Your task to perform on an android device: delete location history Image 0: 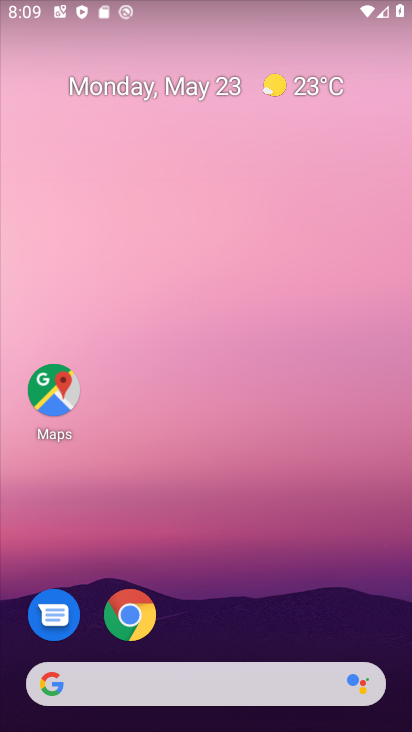
Step 0: click (54, 389)
Your task to perform on an android device: delete location history Image 1: 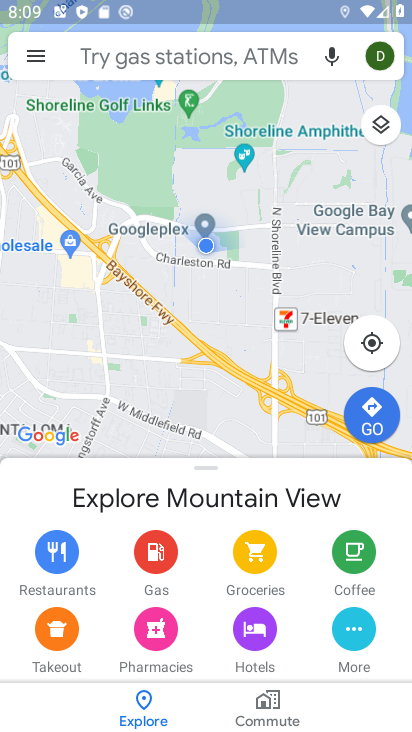
Step 1: click (39, 58)
Your task to perform on an android device: delete location history Image 2: 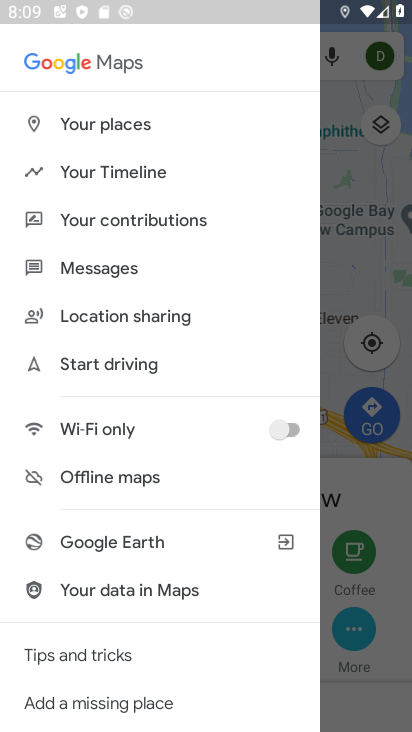
Step 2: drag from (100, 631) to (112, 507)
Your task to perform on an android device: delete location history Image 3: 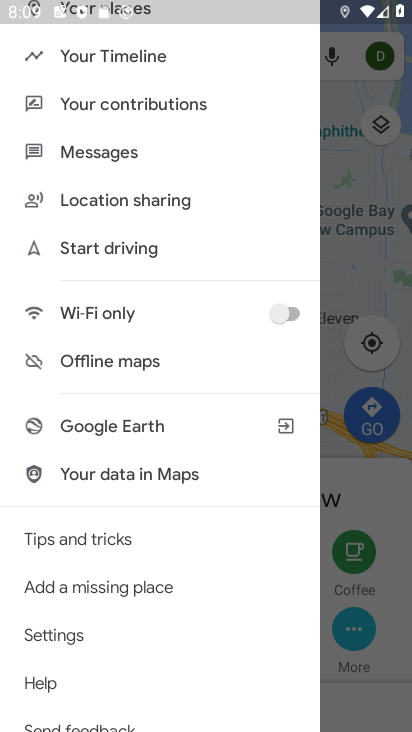
Step 3: click (66, 637)
Your task to perform on an android device: delete location history Image 4: 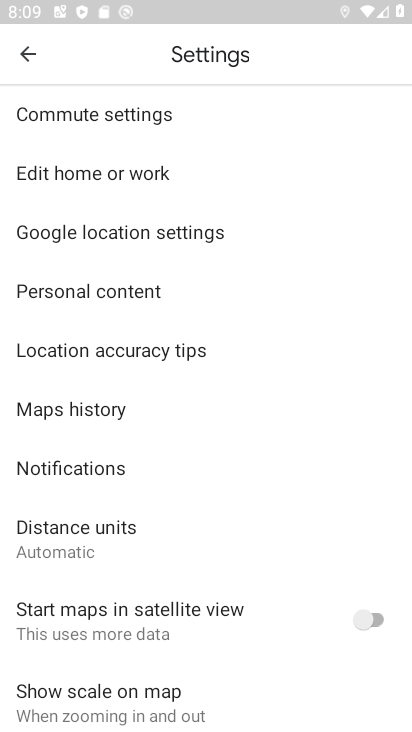
Step 4: click (129, 292)
Your task to perform on an android device: delete location history Image 5: 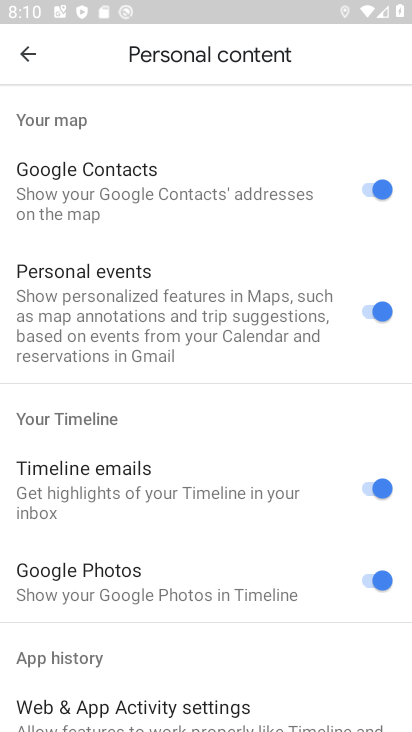
Step 5: drag from (139, 432) to (181, 333)
Your task to perform on an android device: delete location history Image 6: 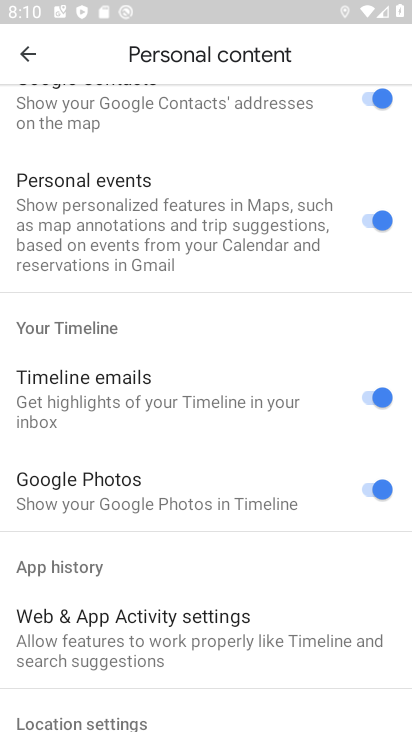
Step 6: drag from (116, 433) to (173, 354)
Your task to perform on an android device: delete location history Image 7: 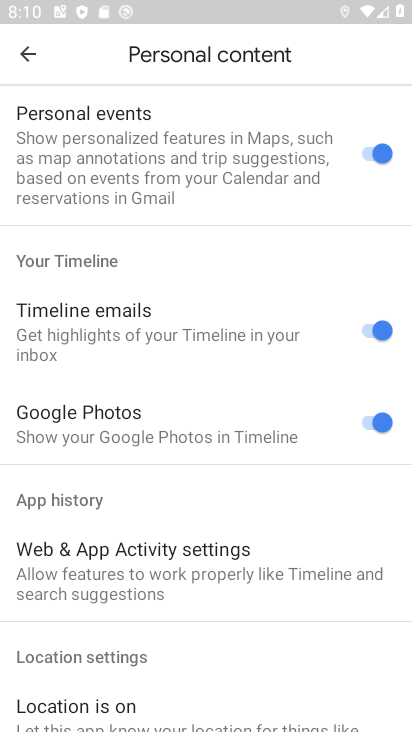
Step 7: drag from (110, 489) to (168, 407)
Your task to perform on an android device: delete location history Image 8: 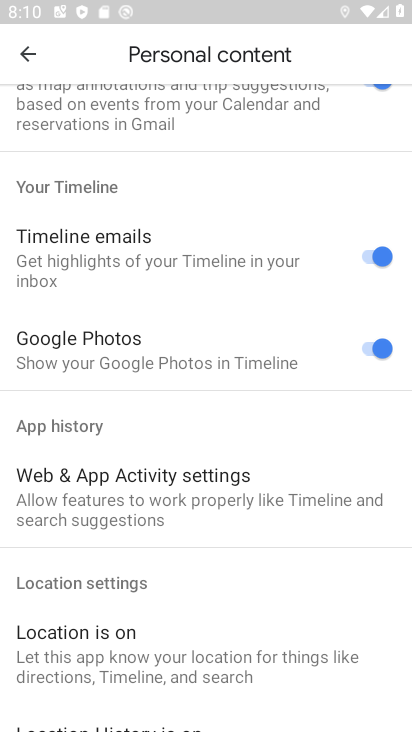
Step 8: drag from (90, 561) to (158, 460)
Your task to perform on an android device: delete location history Image 9: 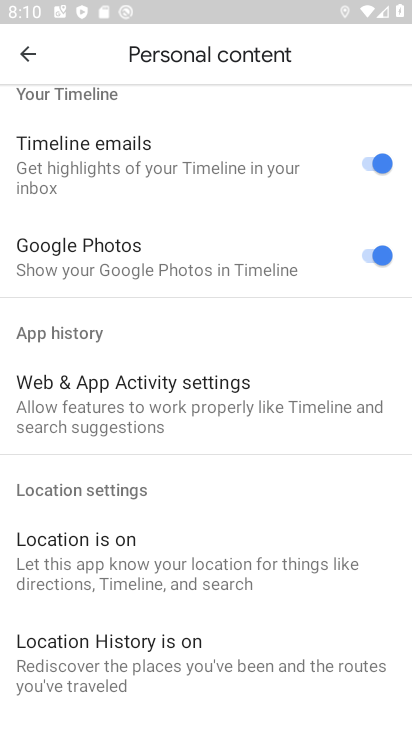
Step 9: drag from (61, 600) to (127, 507)
Your task to perform on an android device: delete location history Image 10: 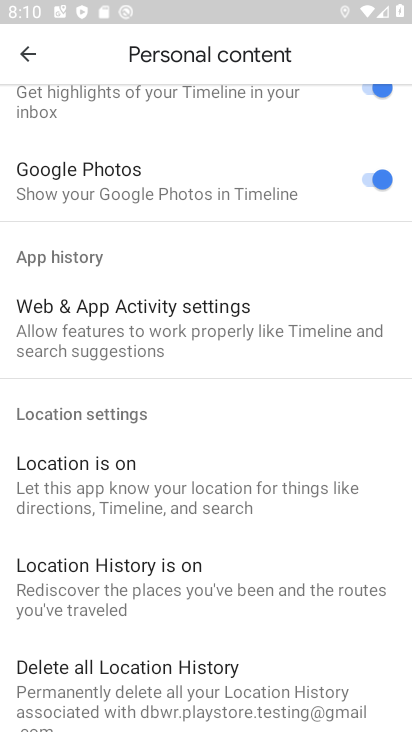
Step 10: drag from (60, 614) to (153, 501)
Your task to perform on an android device: delete location history Image 11: 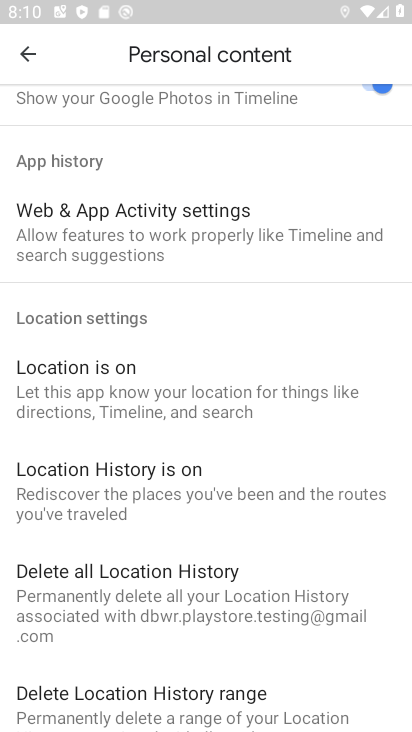
Step 11: drag from (73, 660) to (184, 514)
Your task to perform on an android device: delete location history Image 12: 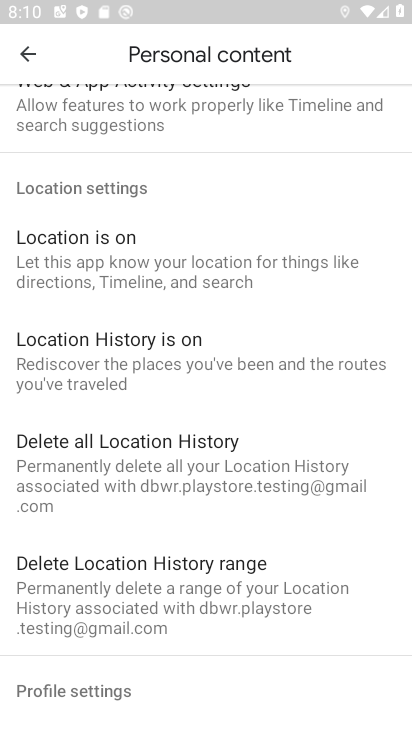
Step 12: click (108, 445)
Your task to perform on an android device: delete location history Image 13: 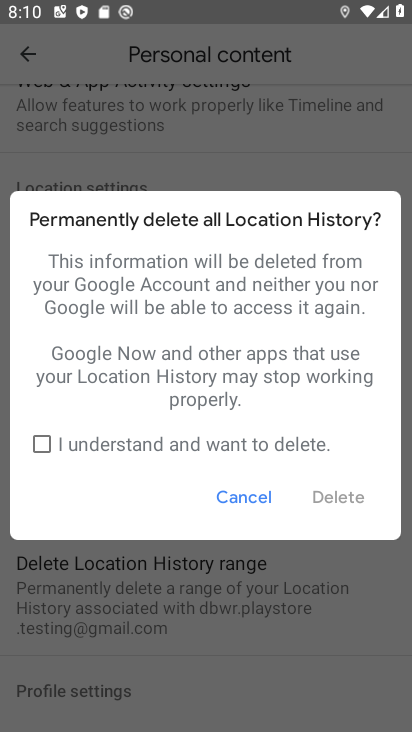
Step 13: click (29, 444)
Your task to perform on an android device: delete location history Image 14: 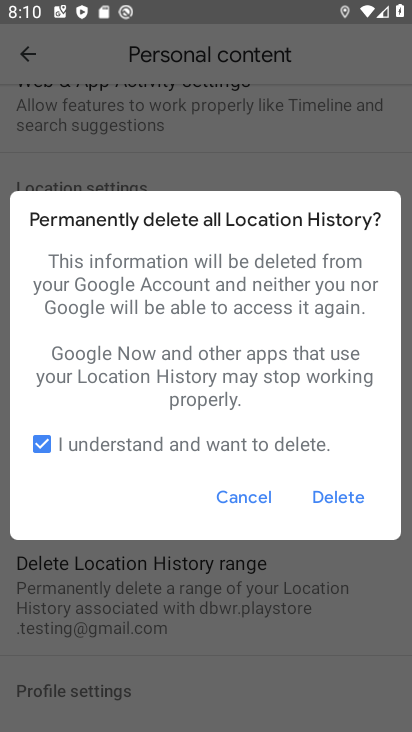
Step 14: click (326, 494)
Your task to perform on an android device: delete location history Image 15: 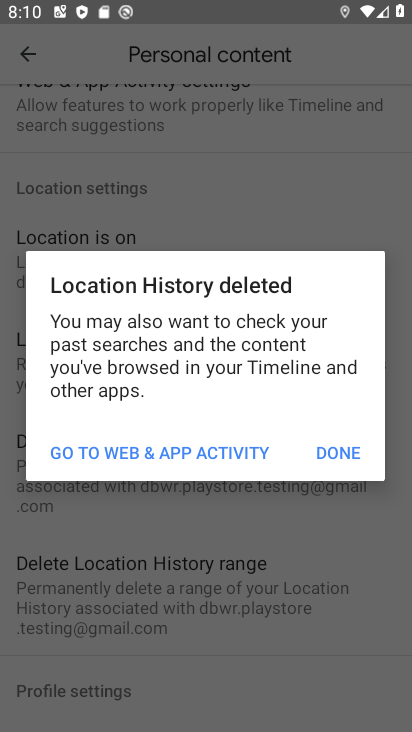
Step 15: click (352, 452)
Your task to perform on an android device: delete location history Image 16: 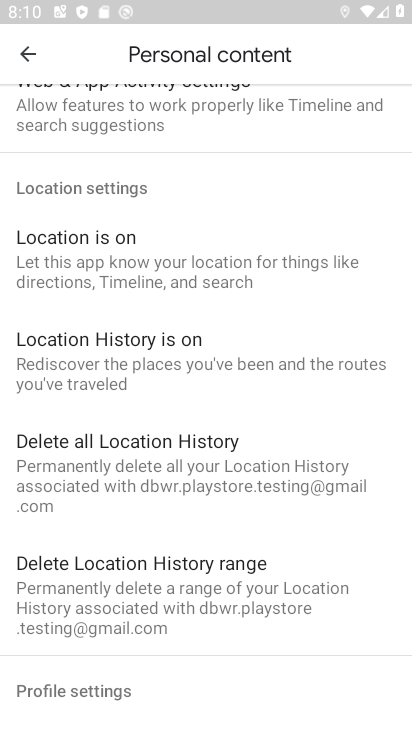
Step 16: task complete